Your task to perform on an android device: turn on sleep mode Image 0: 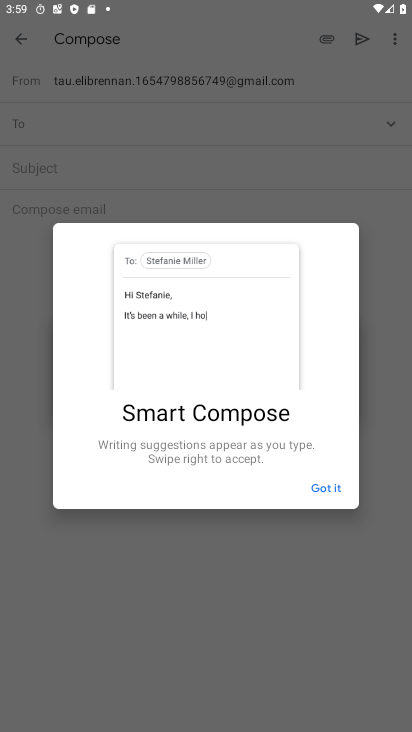
Step 0: click (330, 487)
Your task to perform on an android device: turn on sleep mode Image 1: 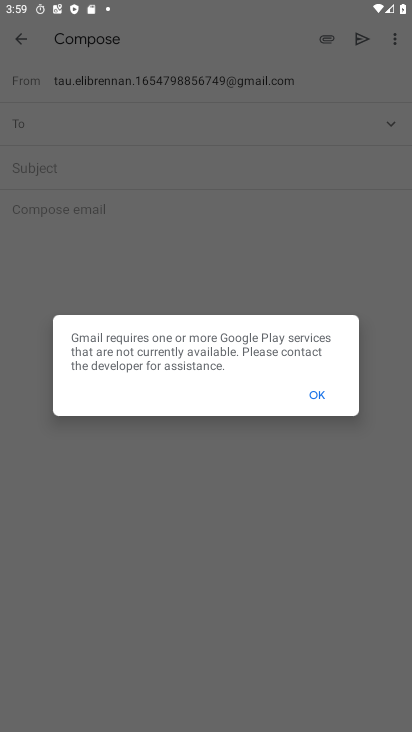
Step 1: click (322, 387)
Your task to perform on an android device: turn on sleep mode Image 2: 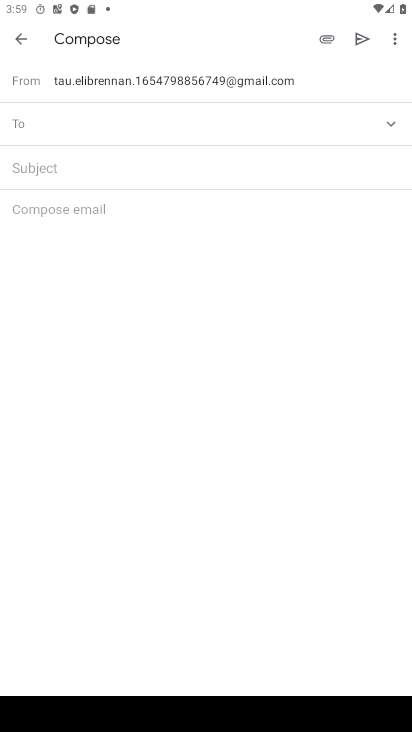
Step 2: press back button
Your task to perform on an android device: turn on sleep mode Image 3: 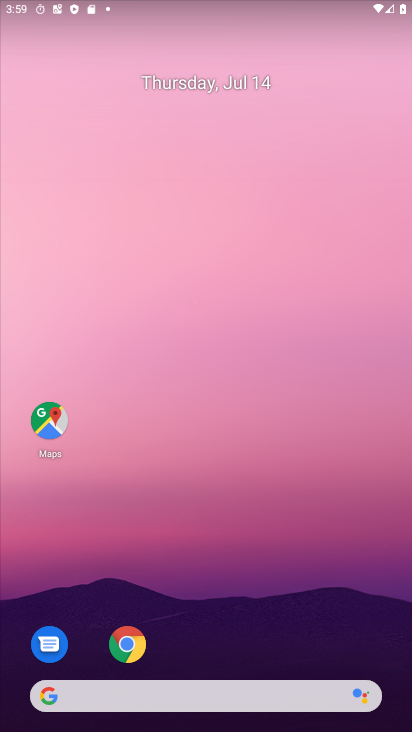
Step 3: drag from (239, 546) to (315, 14)
Your task to perform on an android device: turn on sleep mode Image 4: 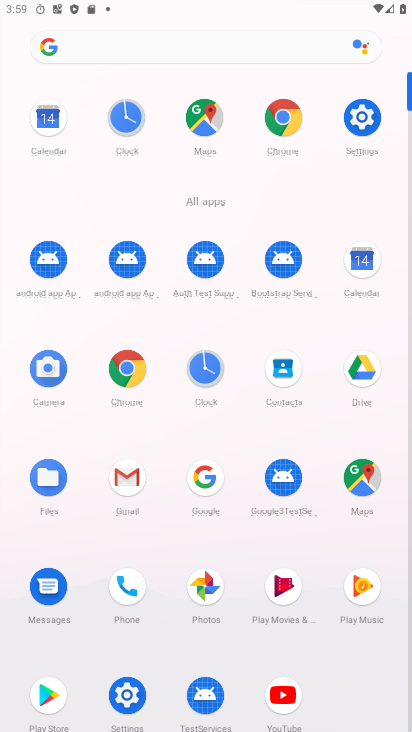
Step 4: click (383, 107)
Your task to perform on an android device: turn on sleep mode Image 5: 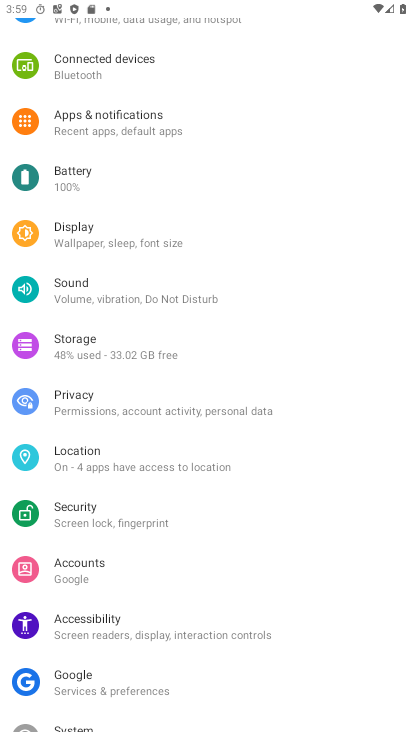
Step 5: drag from (154, 79) to (106, 725)
Your task to perform on an android device: turn on sleep mode Image 6: 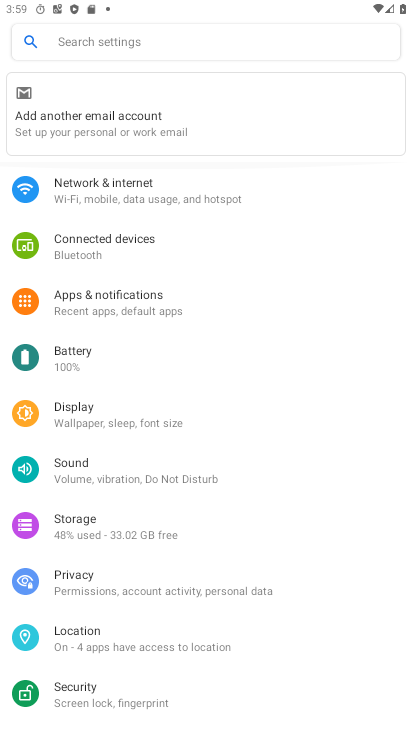
Step 6: click (124, 41)
Your task to perform on an android device: turn on sleep mode Image 7: 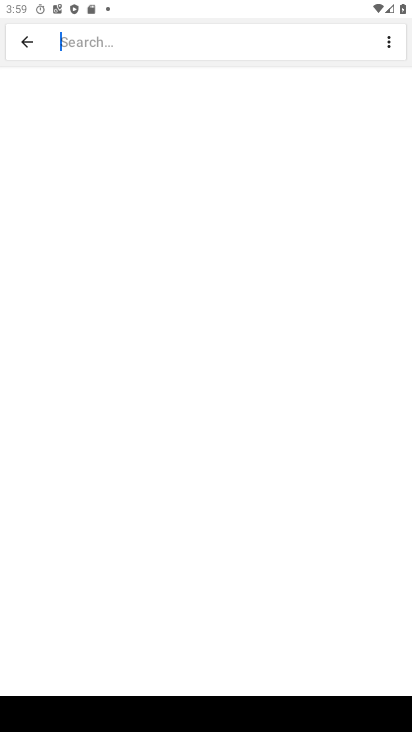
Step 7: type "sleep mode"
Your task to perform on an android device: turn on sleep mode Image 8: 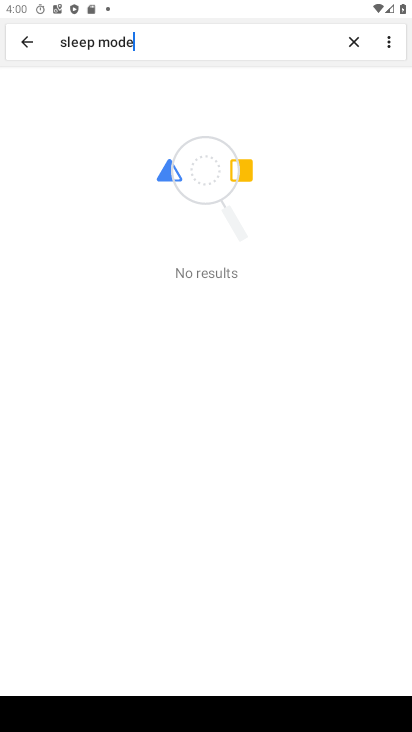
Step 8: task complete